Your task to perform on an android device: change the clock display to show seconds Image 0: 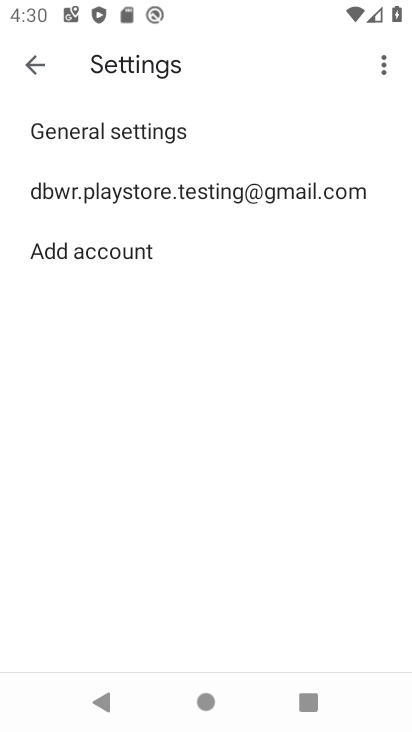
Step 0: press home button
Your task to perform on an android device: change the clock display to show seconds Image 1: 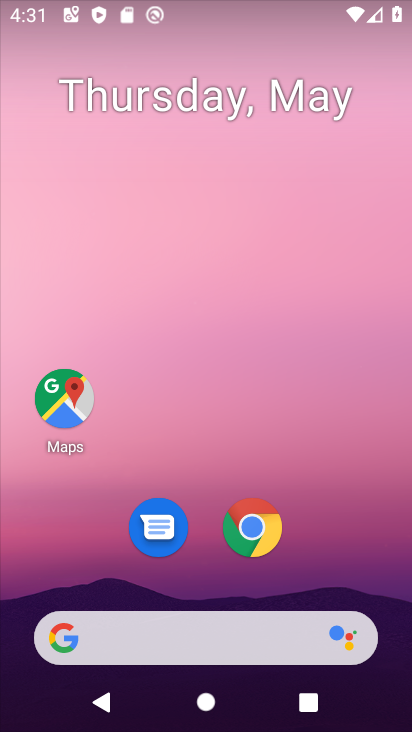
Step 1: drag from (386, 487) to (401, 354)
Your task to perform on an android device: change the clock display to show seconds Image 2: 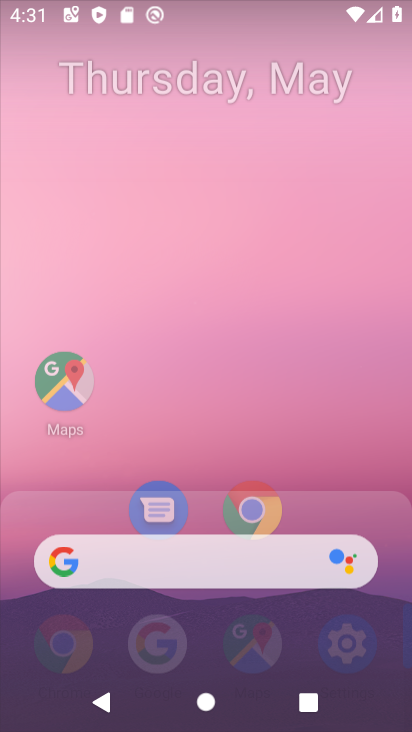
Step 2: drag from (311, 282) to (328, 50)
Your task to perform on an android device: change the clock display to show seconds Image 3: 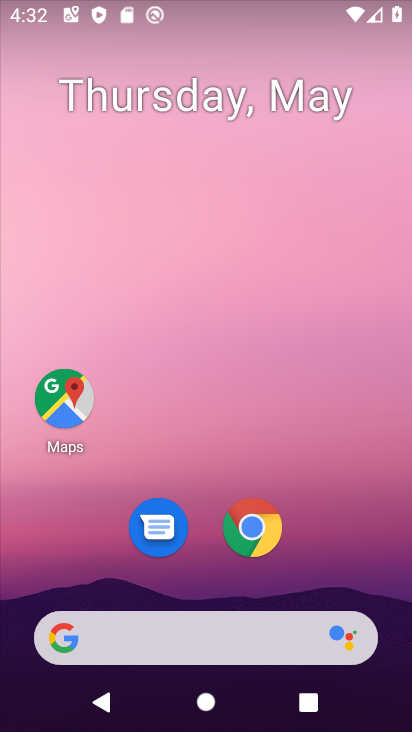
Step 3: drag from (335, 466) to (411, 116)
Your task to perform on an android device: change the clock display to show seconds Image 4: 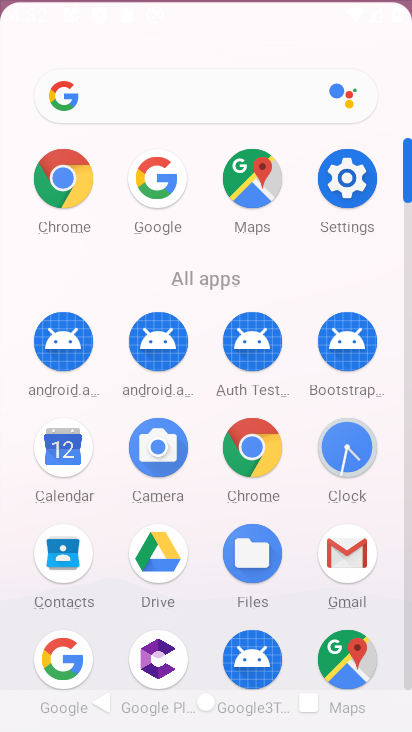
Step 4: drag from (357, 347) to (408, 219)
Your task to perform on an android device: change the clock display to show seconds Image 5: 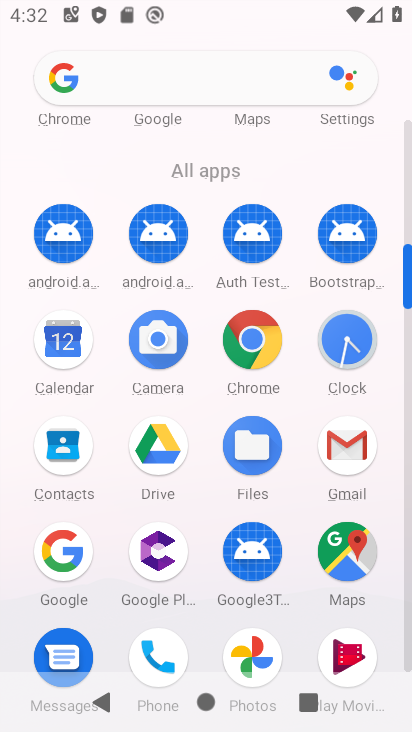
Step 5: drag from (344, 361) to (353, 326)
Your task to perform on an android device: change the clock display to show seconds Image 6: 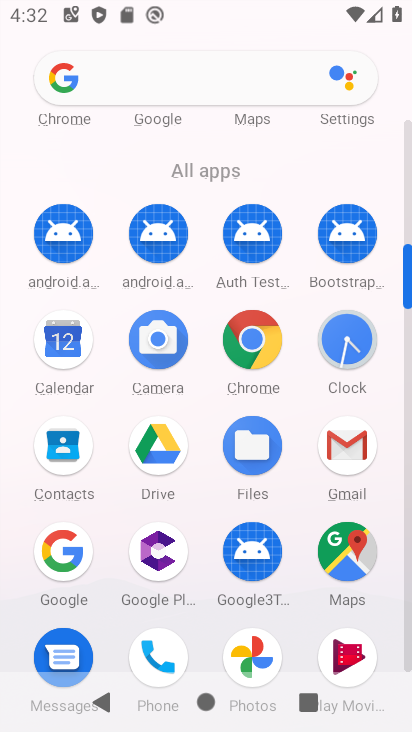
Step 6: click (350, 354)
Your task to perform on an android device: change the clock display to show seconds Image 7: 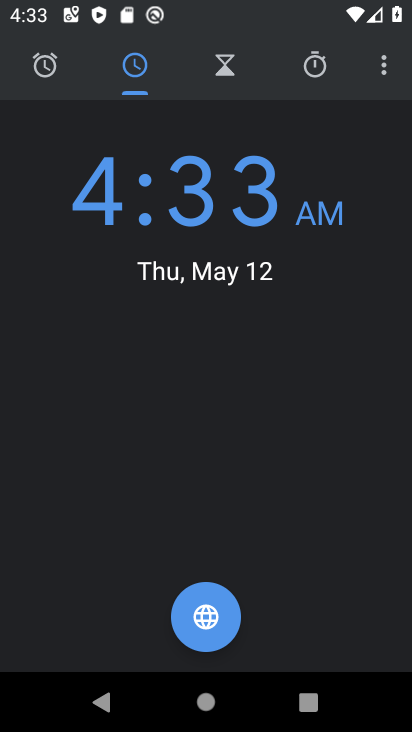
Step 7: click (390, 59)
Your task to perform on an android device: change the clock display to show seconds Image 8: 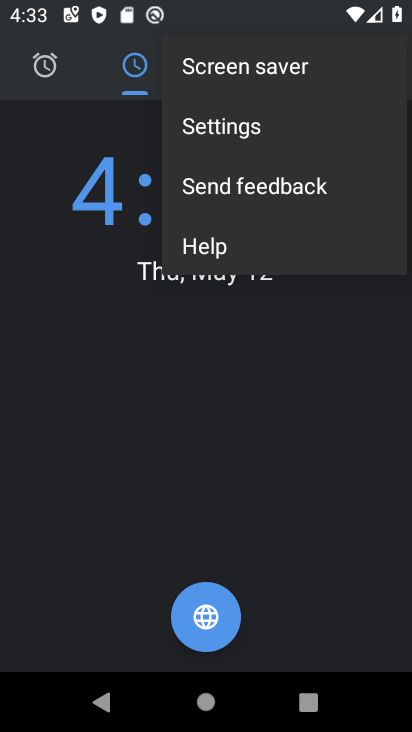
Step 8: click (237, 116)
Your task to perform on an android device: change the clock display to show seconds Image 9: 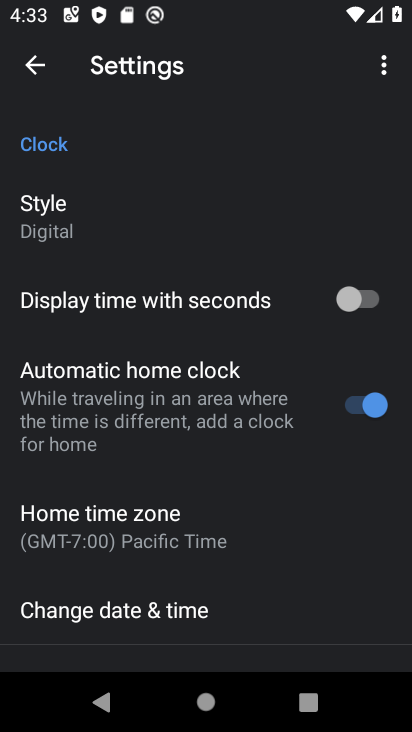
Step 9: click (361, 295)
Your task to perform on an android device: change the clock display to show seconds Image 10: 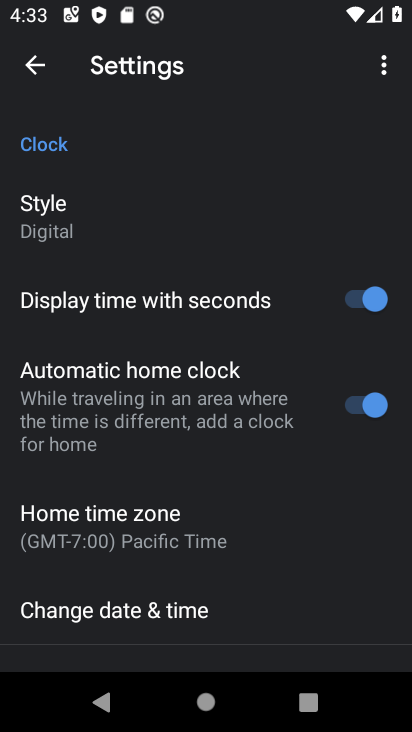
Step 10: task complete